Your task to perform on an android device: Do I have any events tomorrow? Image 0: 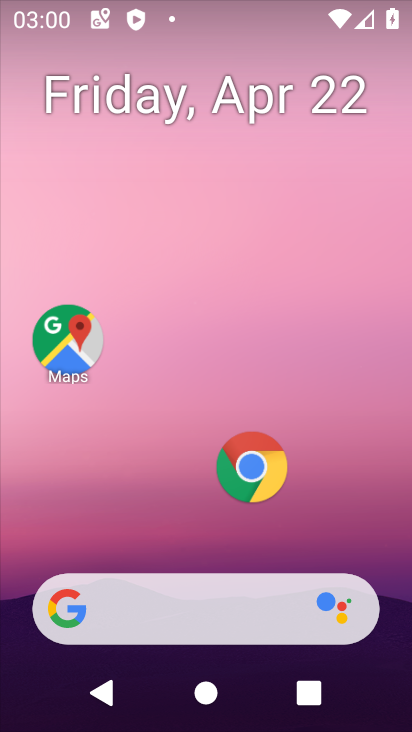
Step 0: drag from (195, 558) to (259, 120)
Your task to perform on an android device: Do I have any events tomorrow? Image 1: 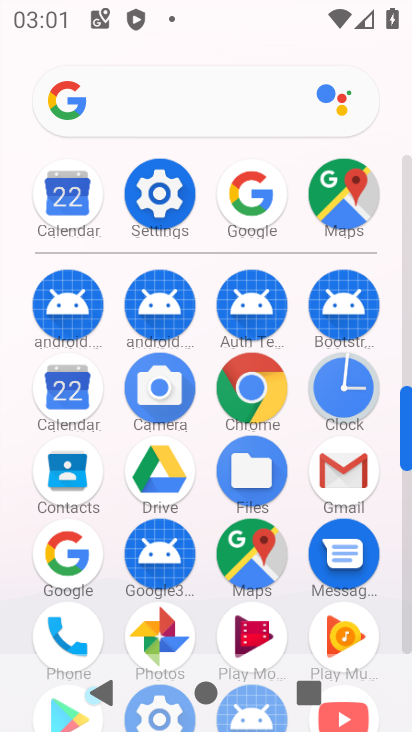
Step 1: click (67, 393)
Your task to perform on an android device: Do I have any events tomorrow? Image 2: 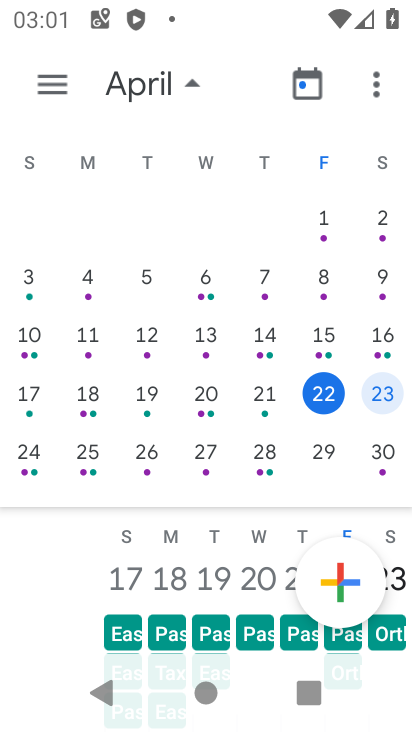
Step 2: click (392, 389)
Your task to perform on an android device: Do I have any events tomorrow? Image 3: 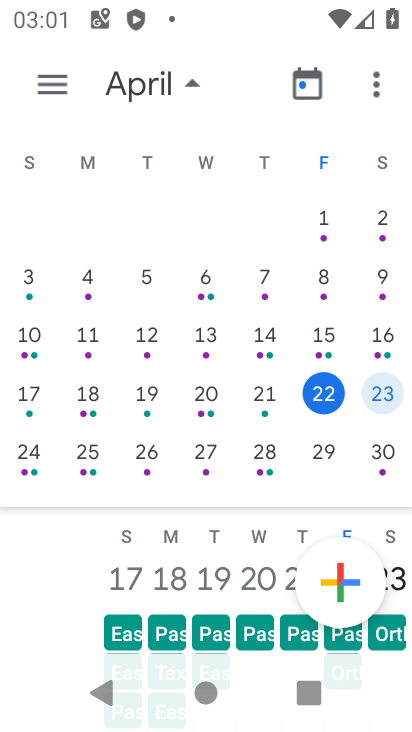
Step 3: task complete